Your task to perform on an android device: Open Google Image 0: 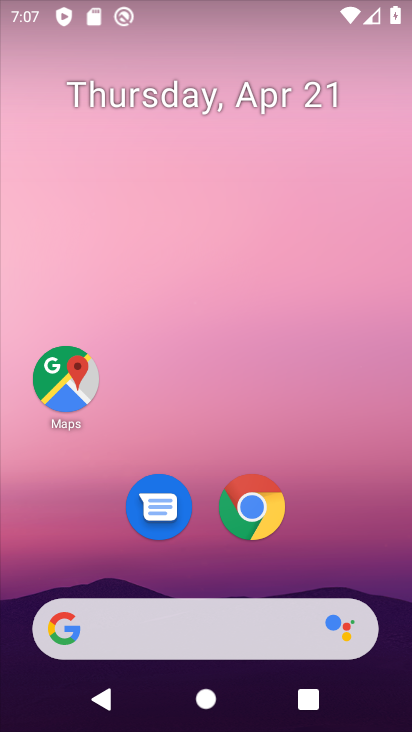
Step 0: click (55, 626)
Your task to perform on an android device: Open Google Image 1: 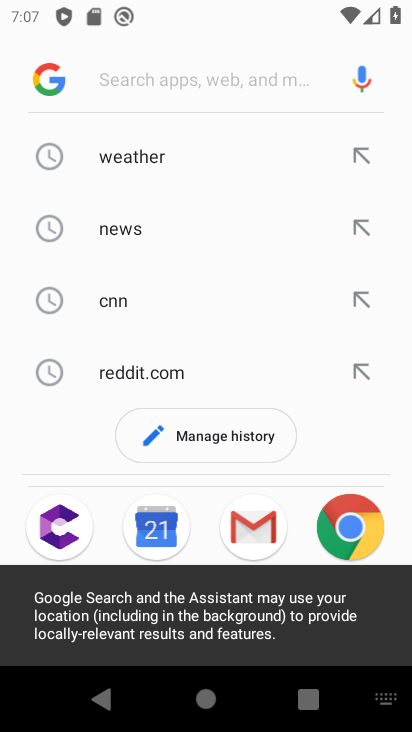
Step 1: click (49, 79)
Your task to perform on an android device: Open Google Image 2: 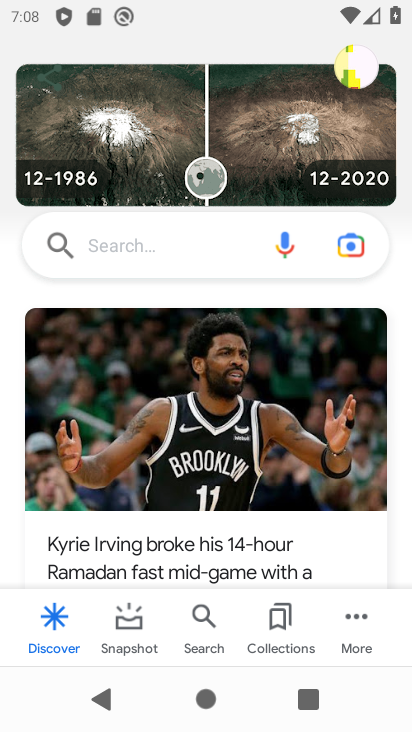
Step 2: task complete